Your task to perform on an android device: clear history in the chrome app Image 0: 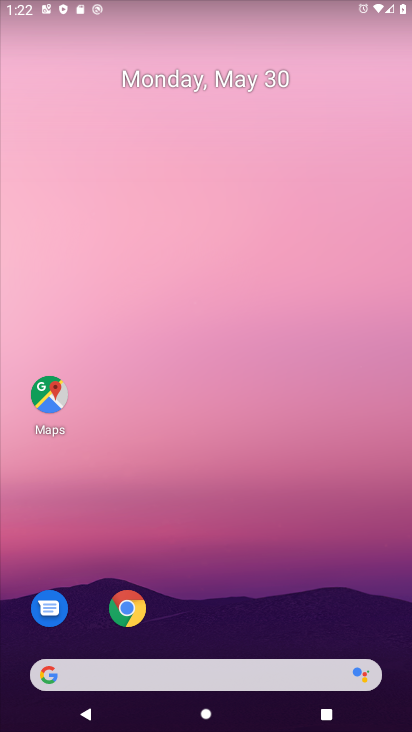
Step 0: click (141, 601)
Your task to perform on an android device: clear history in the chrome app Image 1: 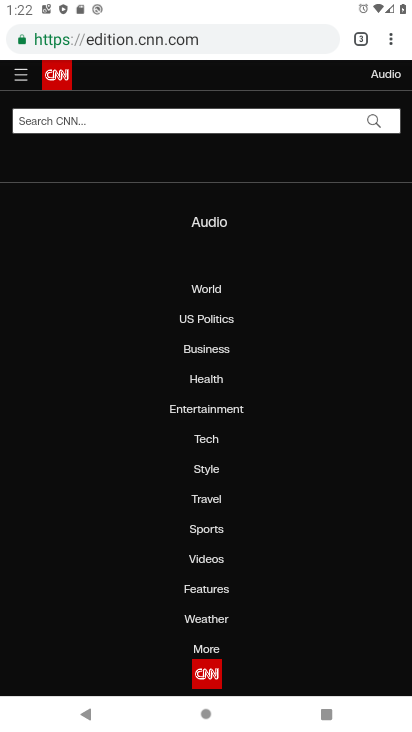
Step 1: click (392, 32)
Your task to perform on an android device: clear history in the chrome app Image 2: 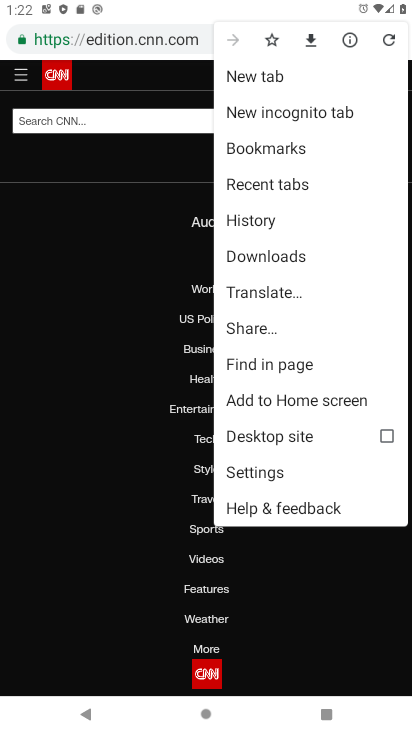
Step 2: click (279, 217)
Your task to perform on an android device: clear history in the chrome app Image 3: 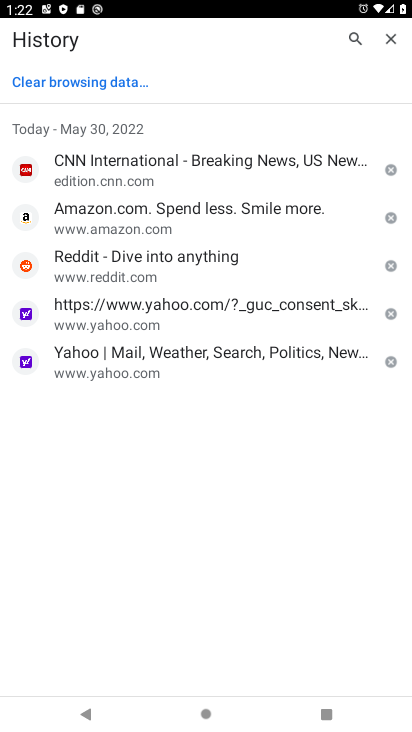
Step 3: click (64, 86)
Your task to perform on an android device: clear history in the chrome app Image 4: 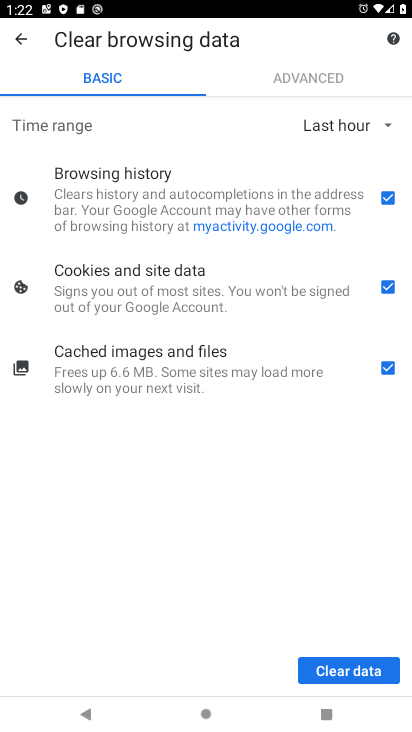
Step 4: click (378, 663)
Your task to perform on an android device: clear history in the chrome app Image 5: 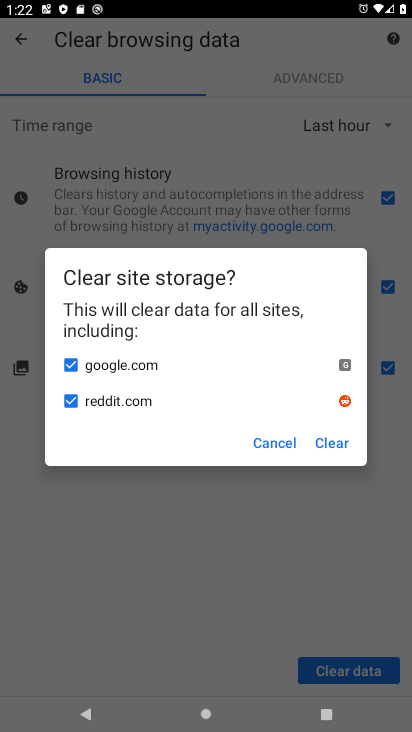
Step 5: click (342, 441)
Your task to perform on an android device: clear history in the chrome app Image 6: 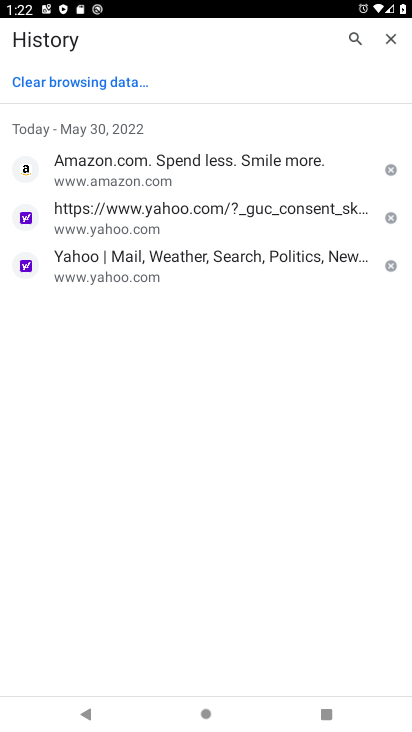
Step 6: task complete